Your task to perform on an android device: add a label to a message in the gmail app Image 0: 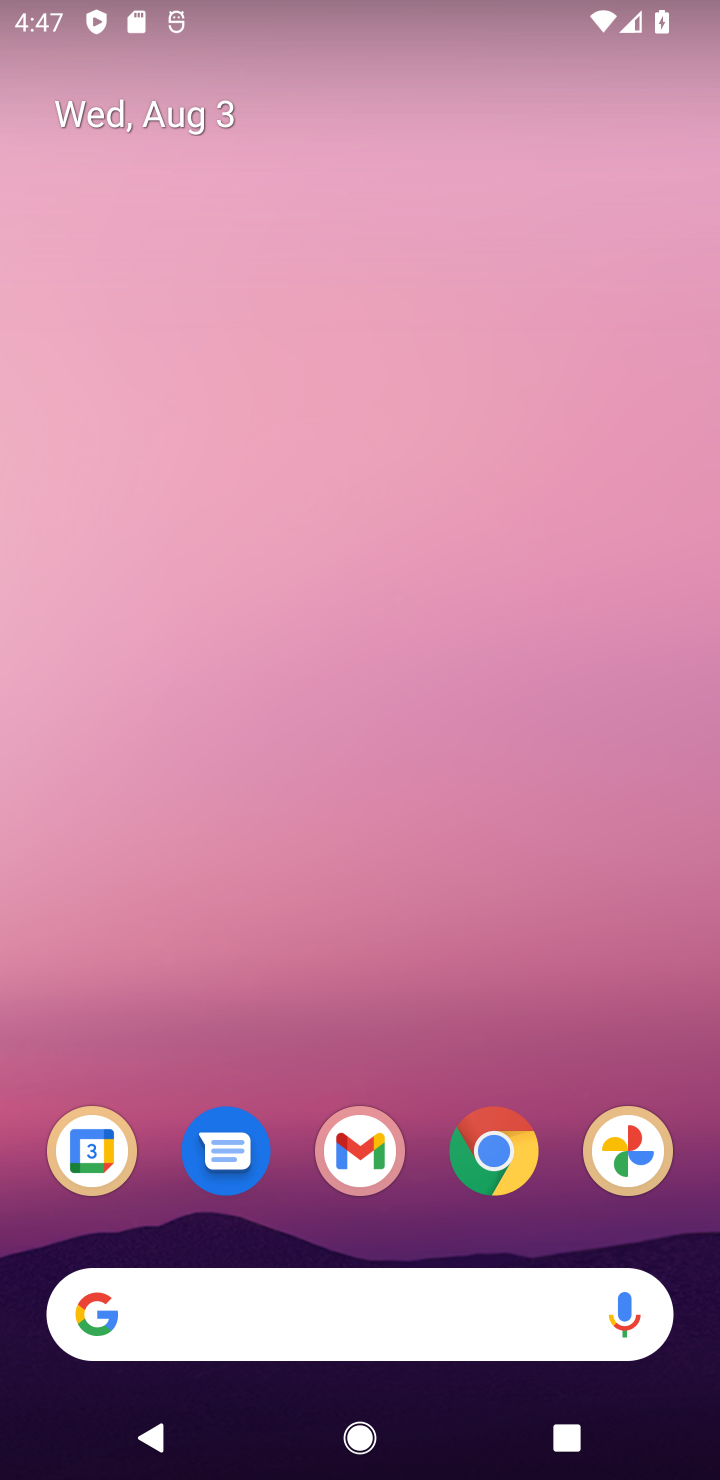
Step 0: click (299, 937)
Your task to perform on an android device: add a label to a message in the gmail app Image 1: 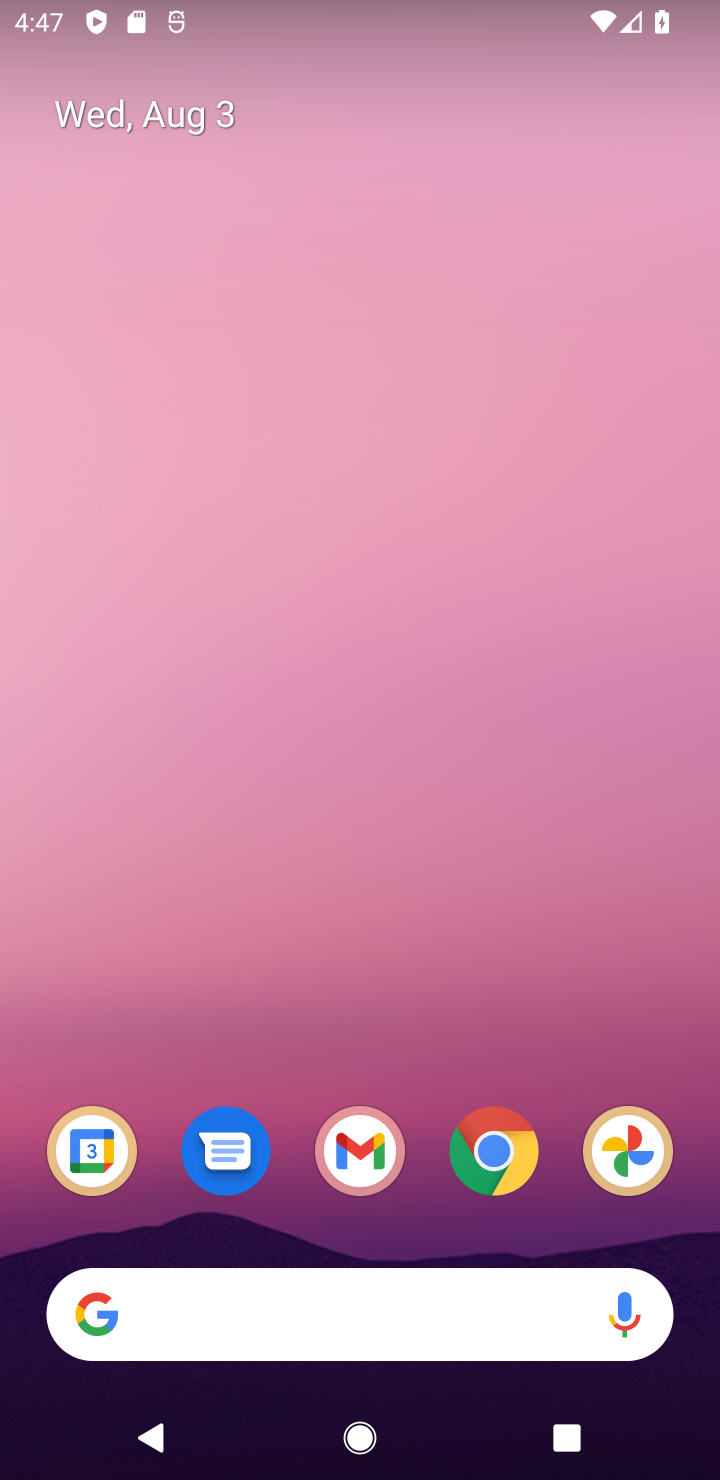
Step 1: click (359, 1153)
Your task to perform on an android device: add a label to a message in the gmail app Image 2: 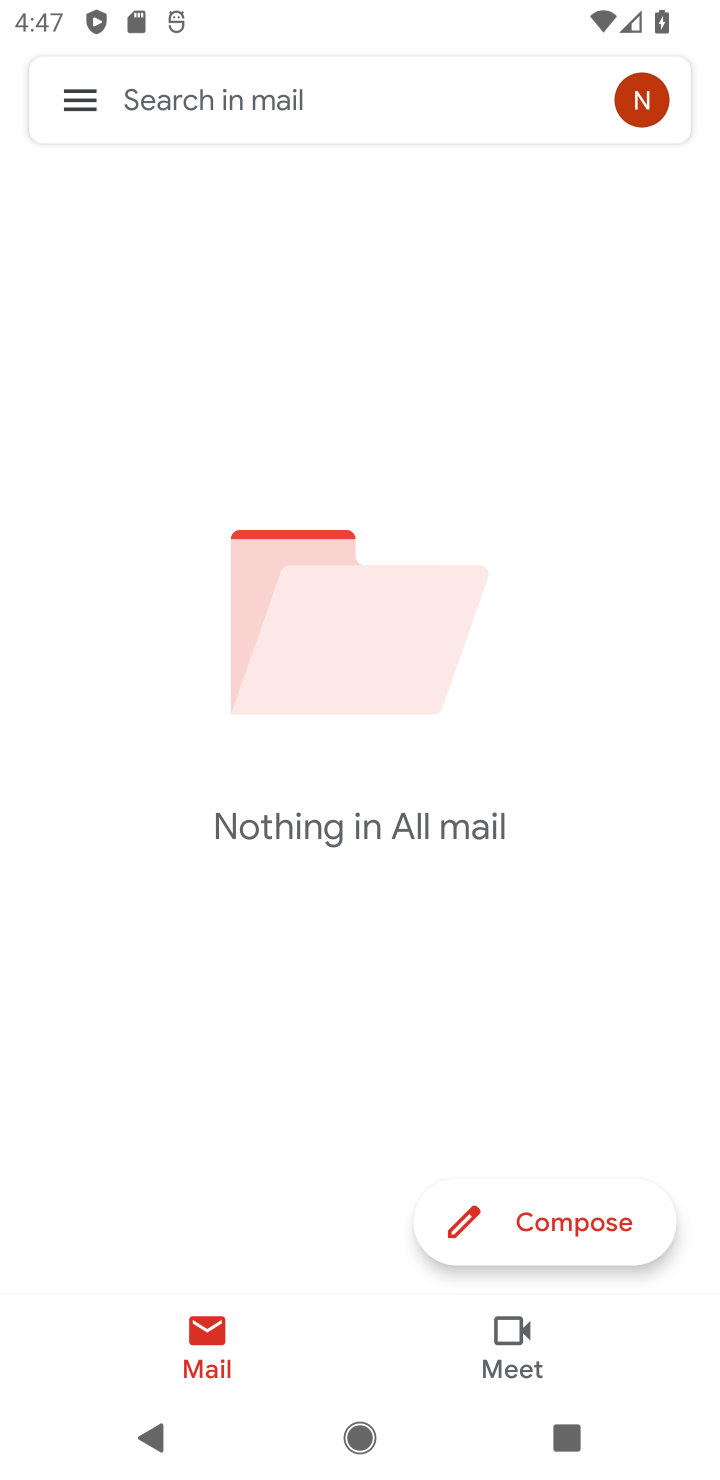
Step 2: click (79, 102)
Your task to perform on an android device: add a label to a message in the gmail app Image 3: 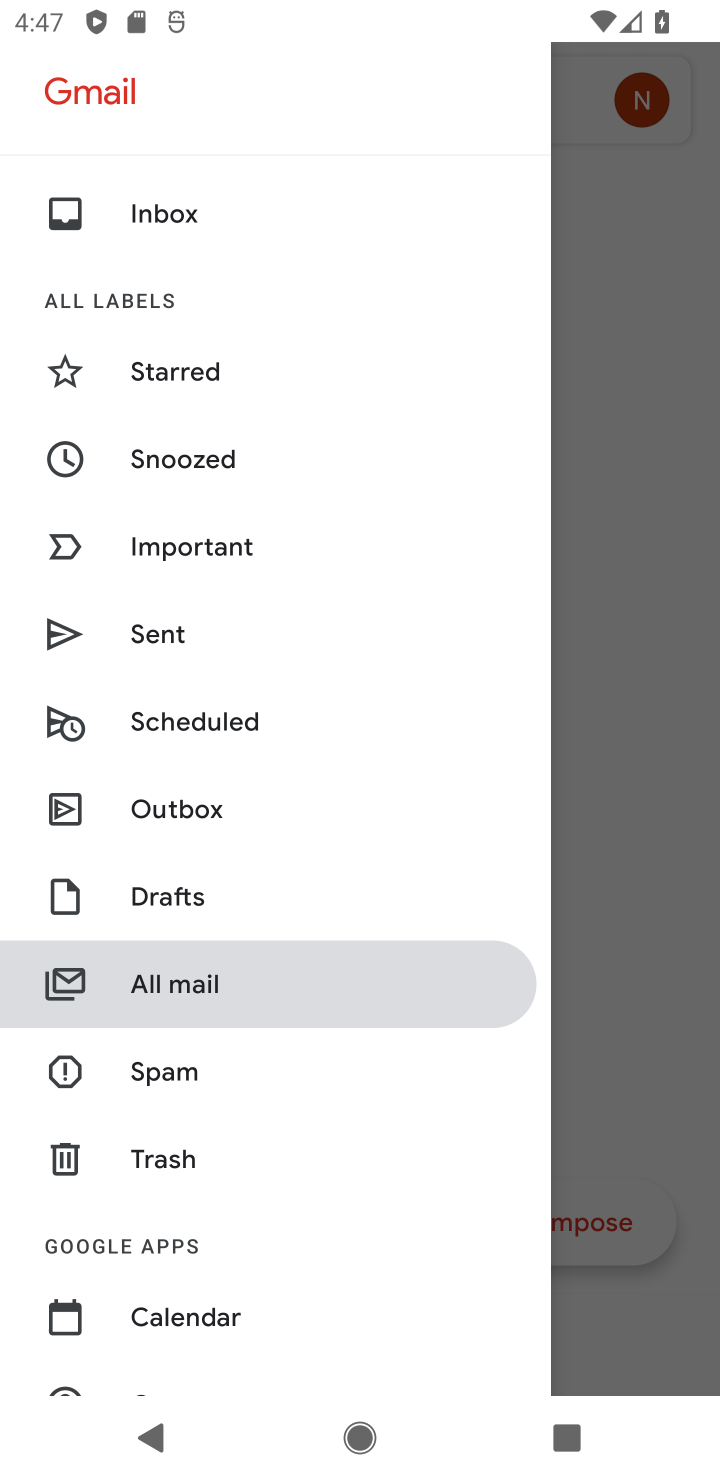
Step 3: task complete